Your task to perform on an android device: Do I have any events this weekend? Image 0: 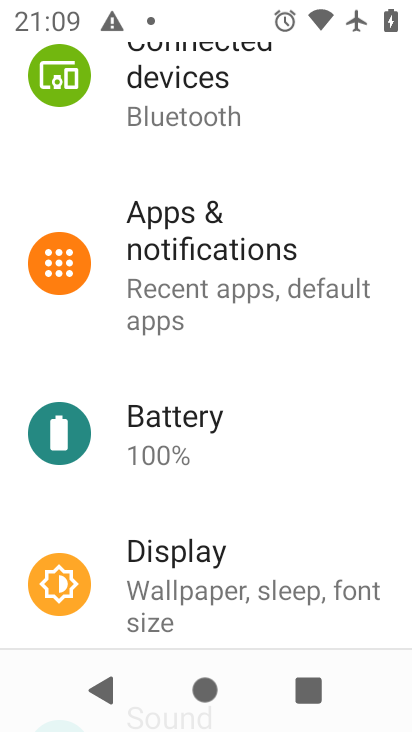
Step 0: press home button
Your task to perform on an android device: Do I have any events this weekend? Image 1: 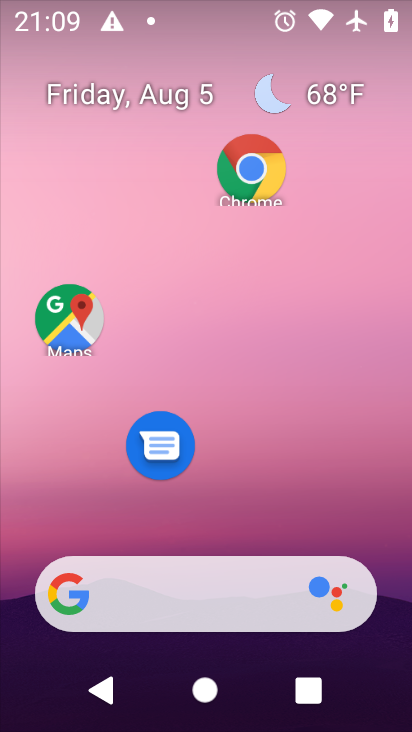
Step 1: drag from (192, 346) to (167, 178)
Your task to perform on an android device: Do I have any events this weekend? Image 2: 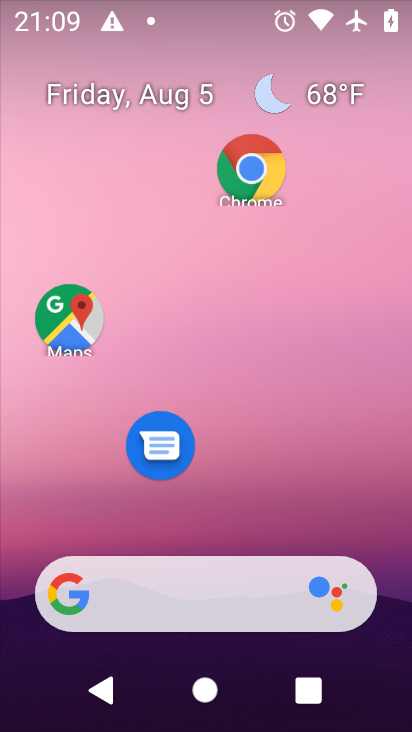
Step 2: drag from (236, 526) to (235, 167)
Your task to perform on an android device: Do I have any events this weekend? Image 3: 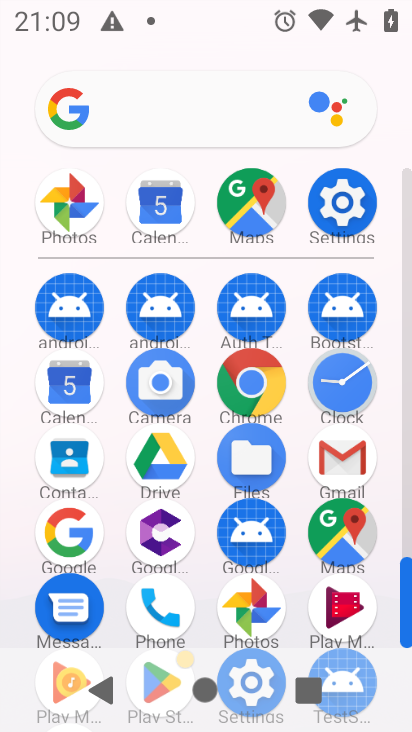
Step 3: click (75, 393)
Your task to perform on an android device: Do I have any events this weekend? Image 4: 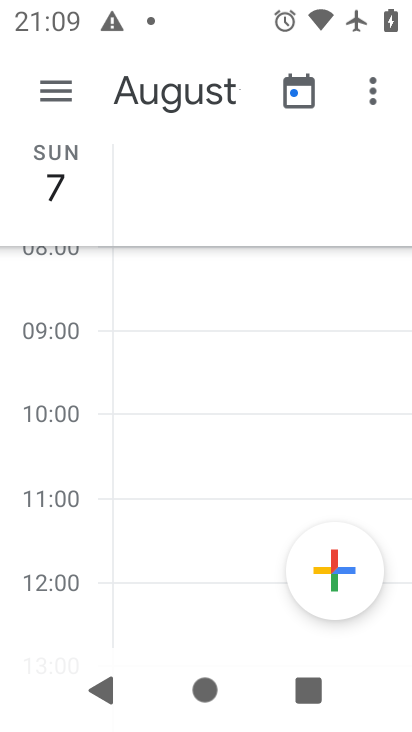
Step 4: click (224, 95)
Your task to perform on an android device: Do I have any events this weekend? Image 5: 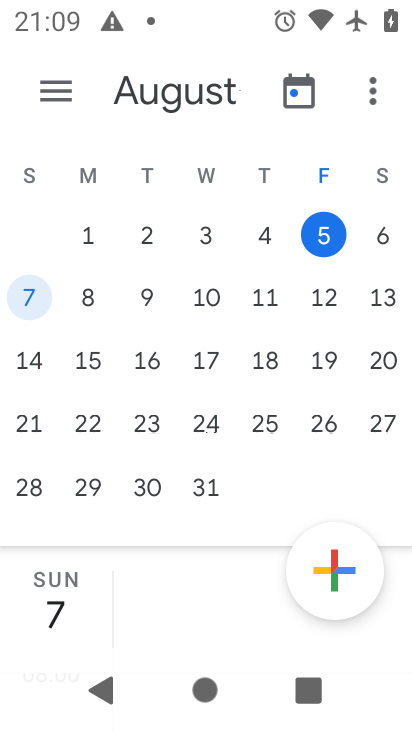
Step 5: click (370, 229)
Your task to perform on an android device: Do I have any events this weekend? Image 6: 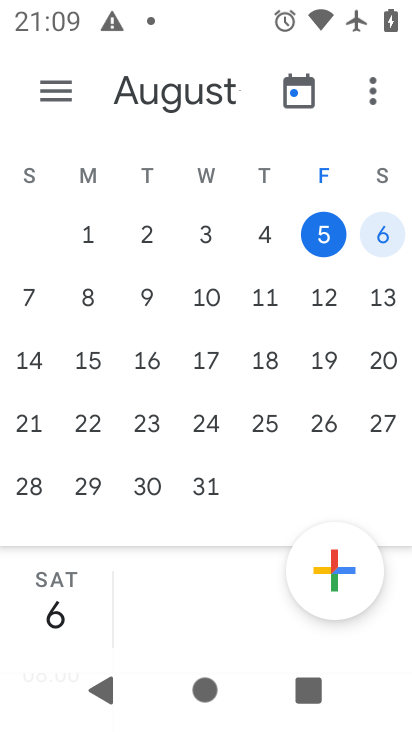
Step 6: click (372, 229)
Your task to perform on an android device: Do I have any events this weekend? Image 7: 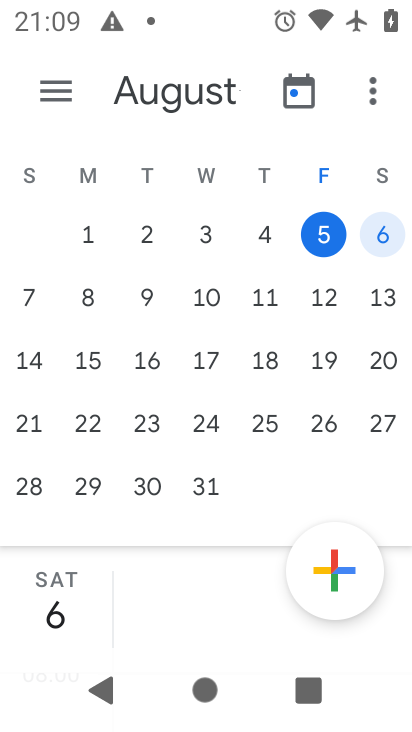
Step 7: task complete